Your task to perform on an android device: Open Google Maps Image 0: 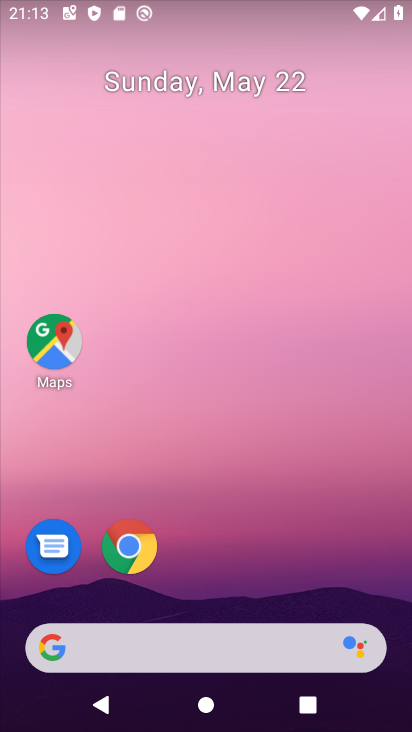
Step 0: click (234, 43)
Your task to perform on an android device: Open Google Maps Image 1: 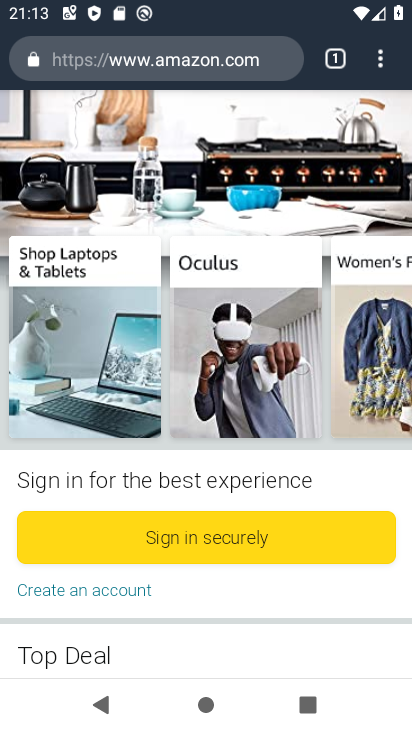
Step 1: drag from (247, 602) to (221, 117)
Your task to perform on an android device: Open Google Maps Image 2: 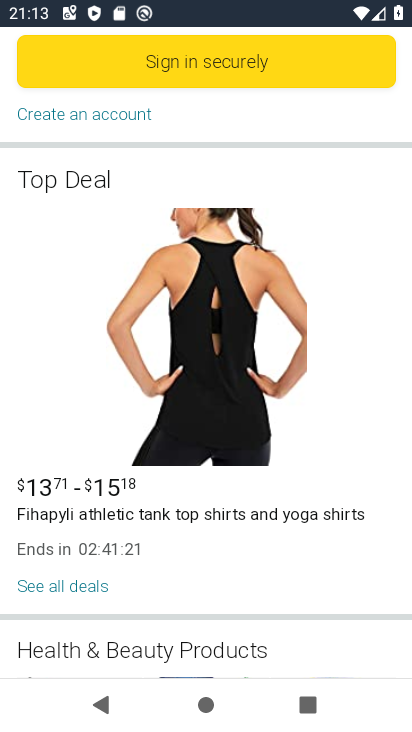
Step 2: drag from (280, 297) to (319, 722)
Your task to perform on an android device: Open Google Maps Image 3: 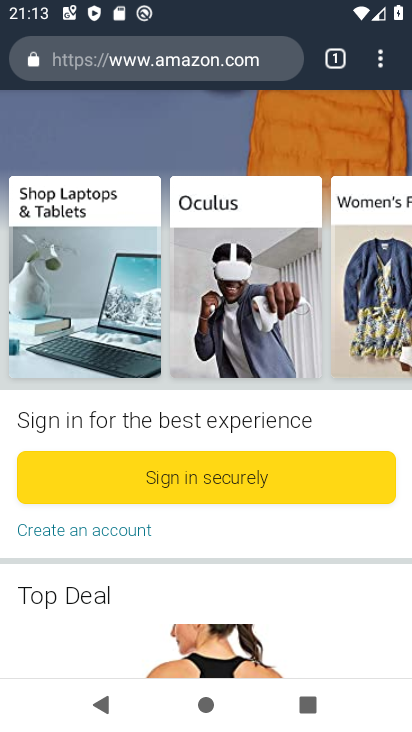
Step 3: press home button
Your task to perform on an android device: Open Google Maps Image 4: 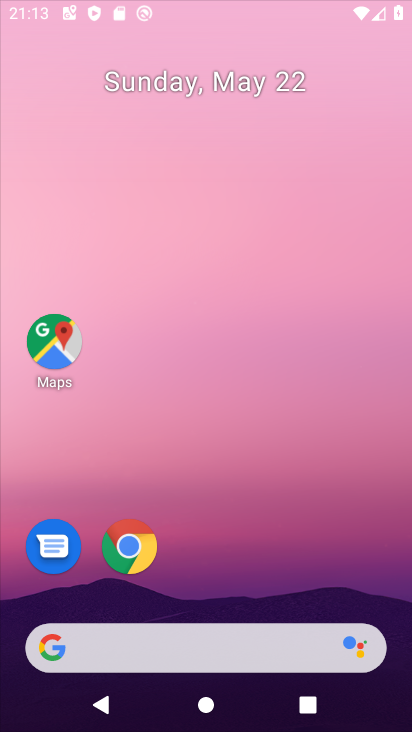
Step 4: drag from (208, 503) to (251, 209)
Your task to perform on an android device: Open Google Maps Image 5: 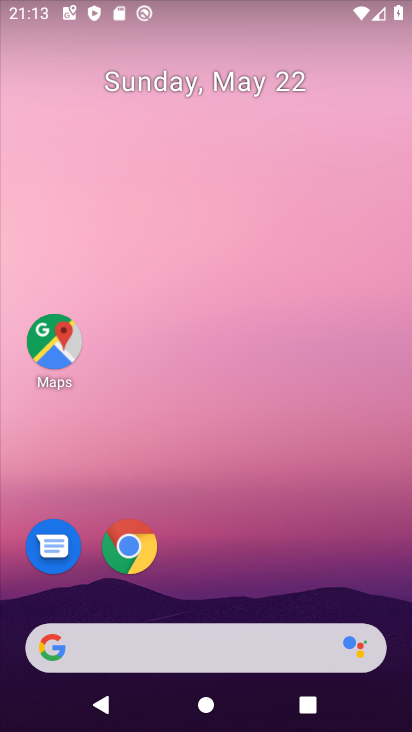
Step 5: click (64, 324)
Your task to perform on an android device: Open Google Maps Image 6: 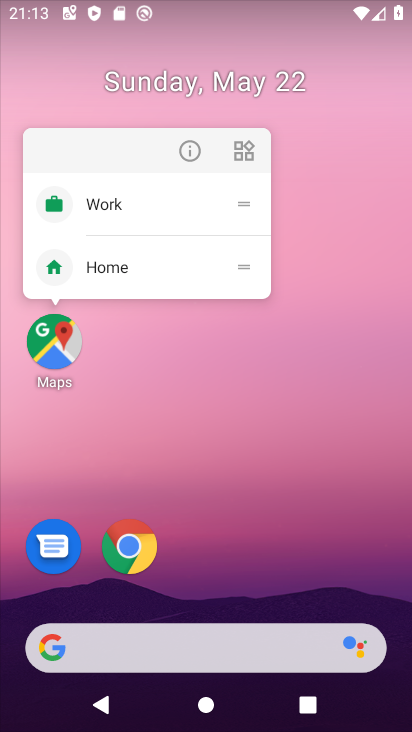
Step 6: click (196, 154)
Your task to perform on an android device: Open Google Maps Image 7: 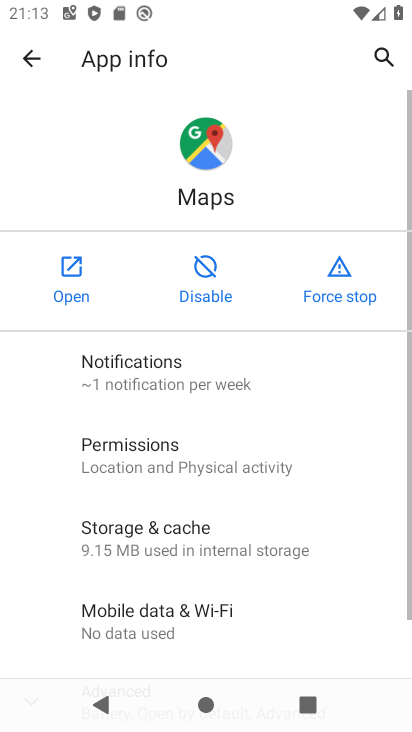
Step 7: click (78, 271)
Your task to perform on an android device: Open Google Maps Image 8: 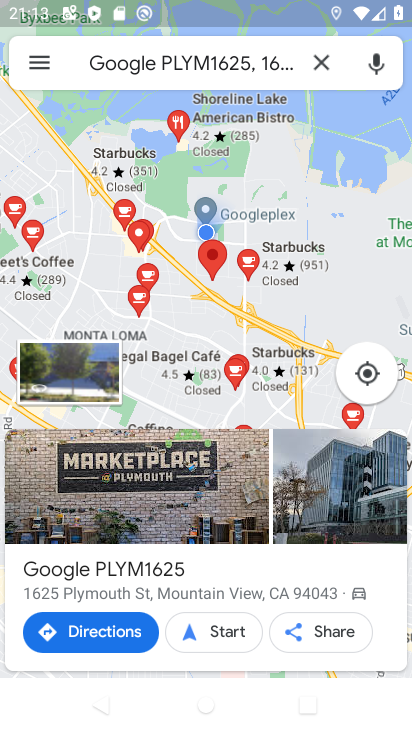
Step 8: click (322, 64)
Your task to perform on an android device: Open Google Maps Image 9: 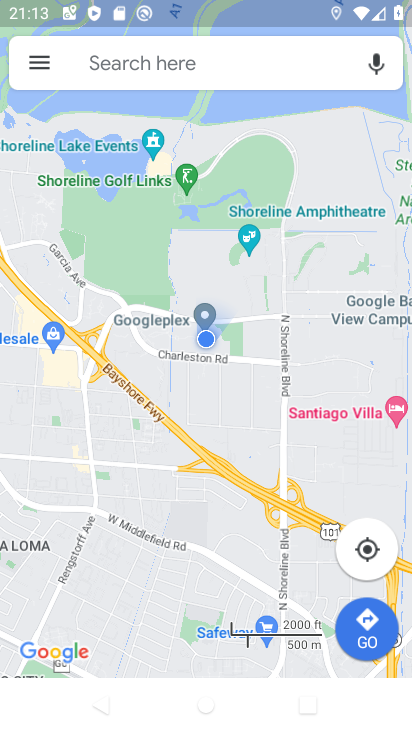
Step 9: click (145, 68)
Your task to perform on an android device: Open Google Maps Image 10: 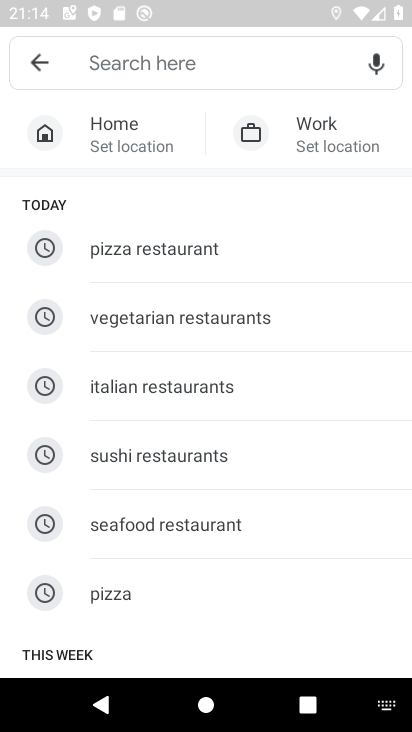
Step 10: task complete